Your task to perform on an android device: toggle wifi Image 0: 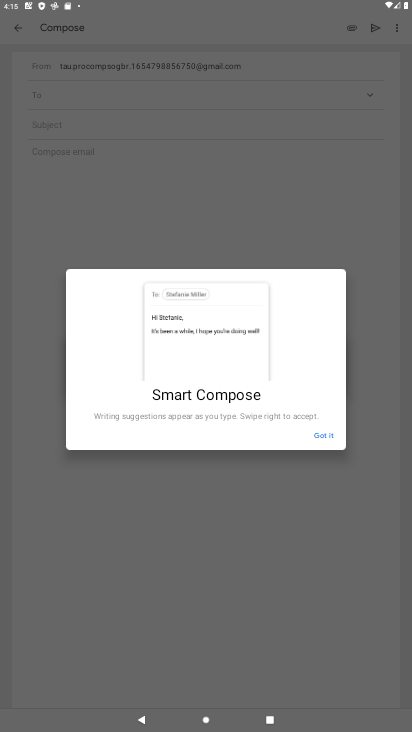
Step 0: press home button
Your task to perform on an android device: toggle wifi Image 1: 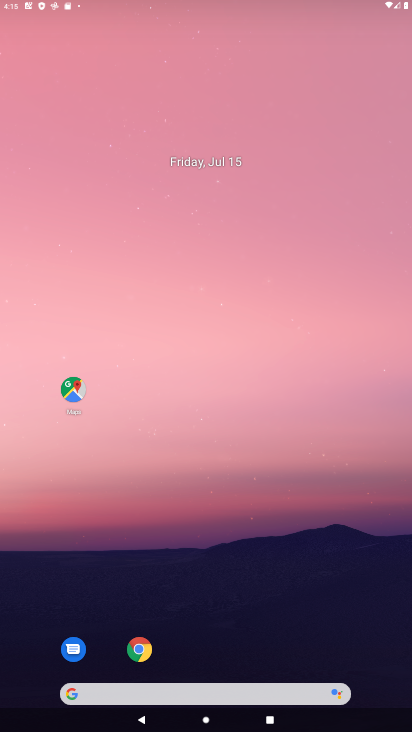
Step 1: drag from (305, 623) to (273, 122)
Your task to perform on an android device: toggle wifi Image 2: 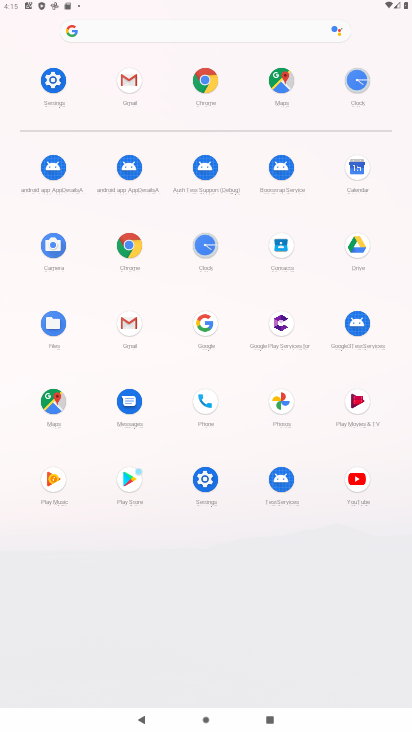
Step 2: click (55, 76)
Your task to perform on an android device: toggle wifi Image 3: 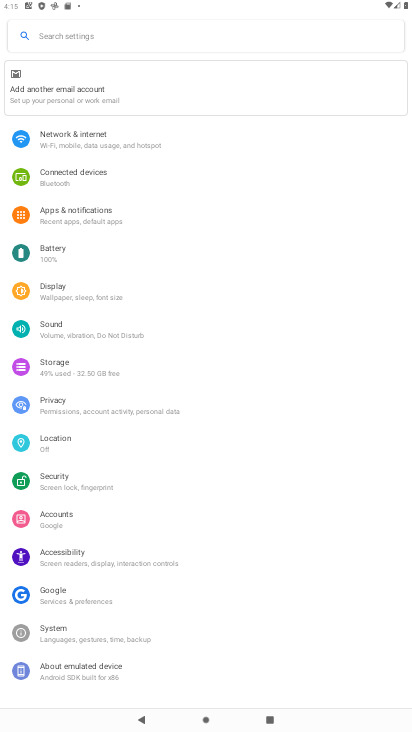
Step 3: click (68, 150)
Your task to perform on an android device: toggle wifi Image 4: 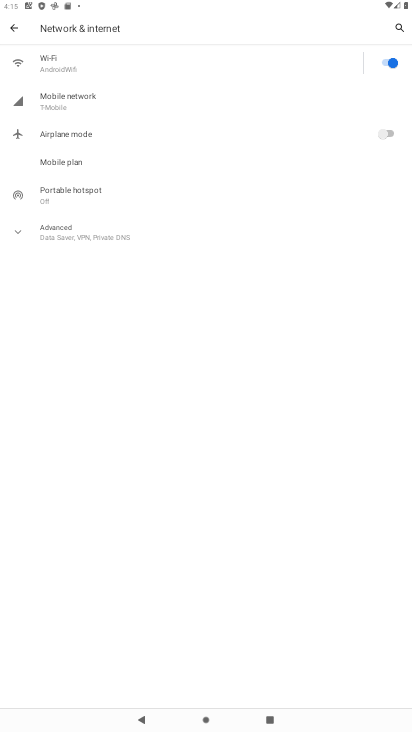
Step 4: click (311, 59)
Your task to perform on an android device: toggle wifi Image 5: 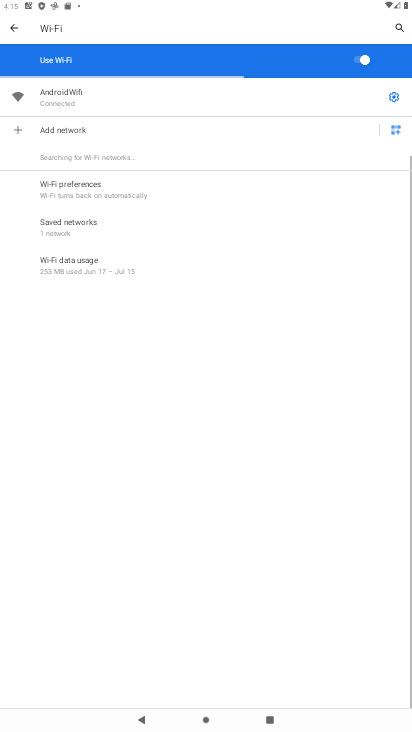
Step 5: click (355, 58)
Your task to perform on an android device: toggle wifi Image 6: 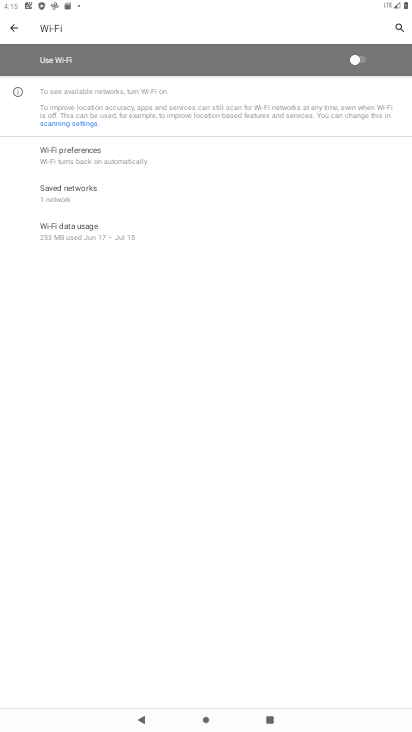
Step 6: task complete